Your task to perform on an android device: visit the assistant section in the google photos Image 0: 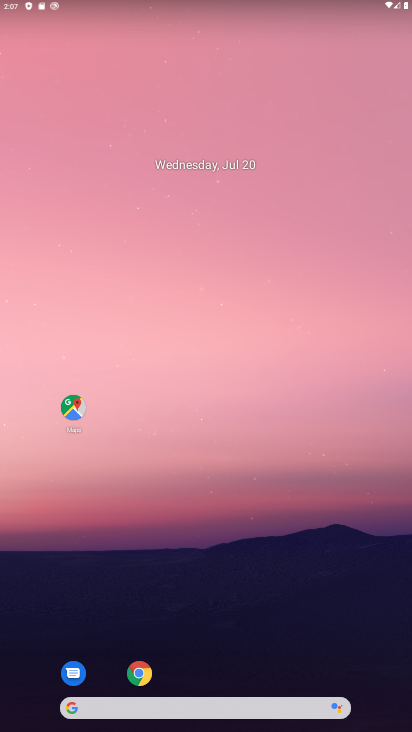
Step 0: drag from (217, 681) to (116, 115)
Your task to perform on an android device: visit the assistant section in the google photos Image 1: 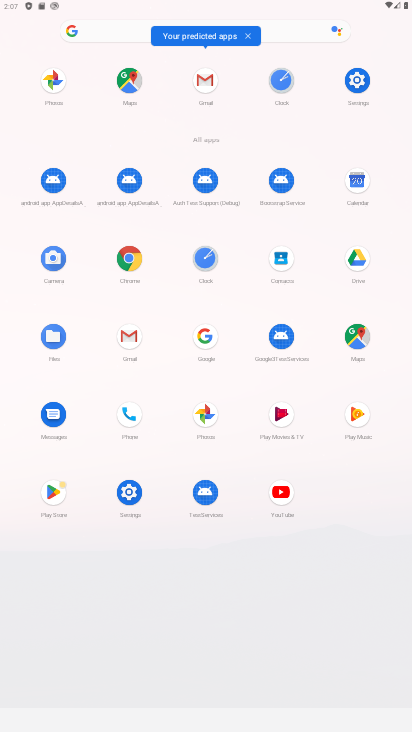
Step 1: click (207, 415)
Your task to perform on an android device: visit the assistant section in the google photos Image 2: 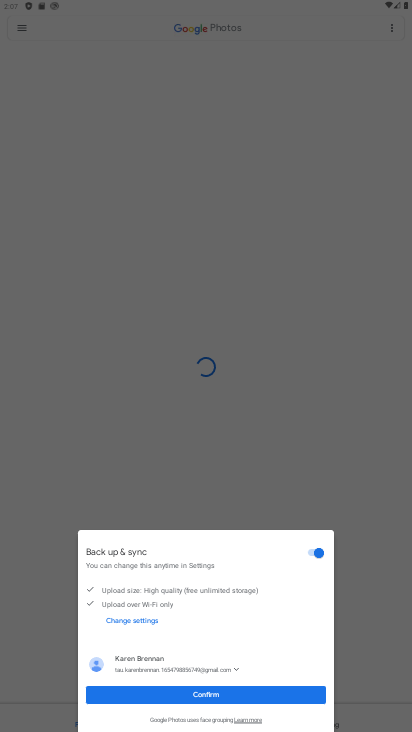
Step 2: click (202, 690)
Your task to perform on an android device: visit the assistant section in the google photos Image 3: 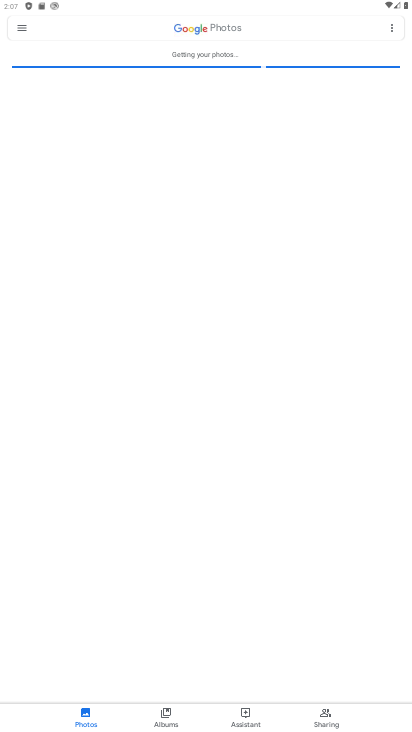
Step 3: click (238, 714)
Your task to perform on an android device: visit the assistant section in the google photos Image 4: 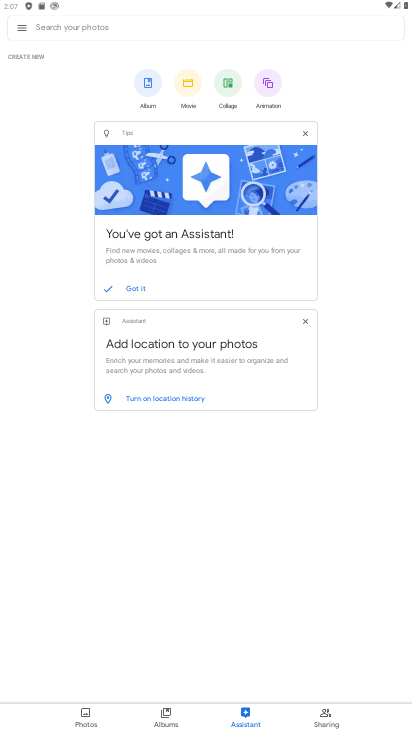
Step 4: task complete